Your task to perform on an android device: turn off javascript in the chrome app Image 0: 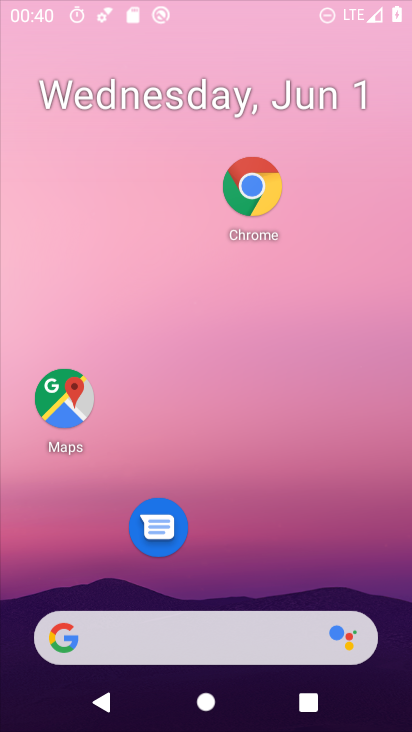
Step 0: click (183, 187)
Your task to perform on an android device: turn off javascript in the chrome app Image 1: 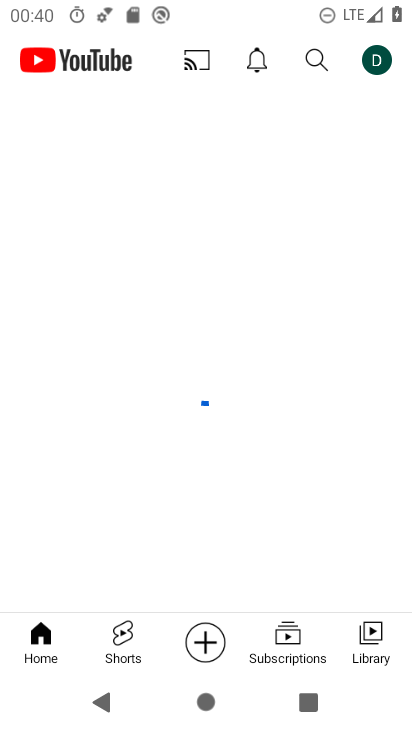
Step 1: drag from (234, 527) to (189, 212)
Your task to perform on an android device: turn off javascript in the chrome app Image 2: 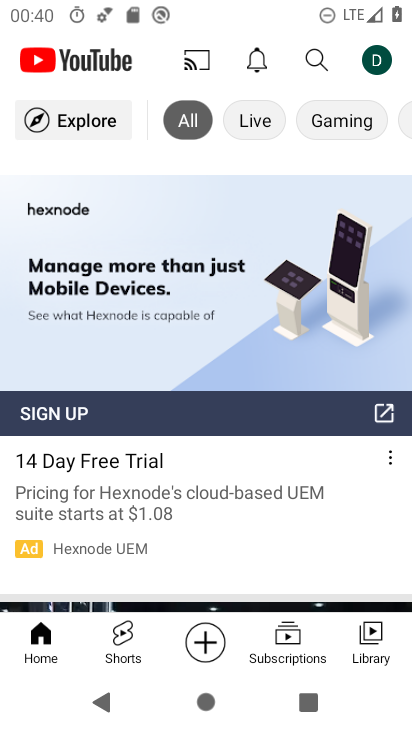
Step 2: press home button
Your task to perform on an android device: turn off javascript in the chrome app Image 3: 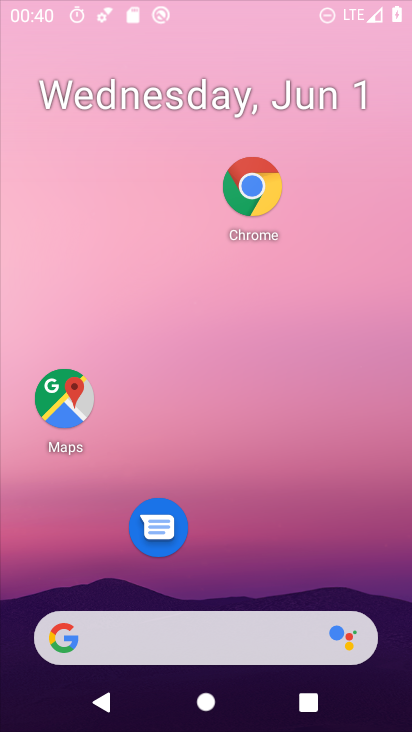
Step 3: drag from (274, 509) to (285, 254)
Your task to perform on an android device: turn off javascript in the chrome app Image 4: 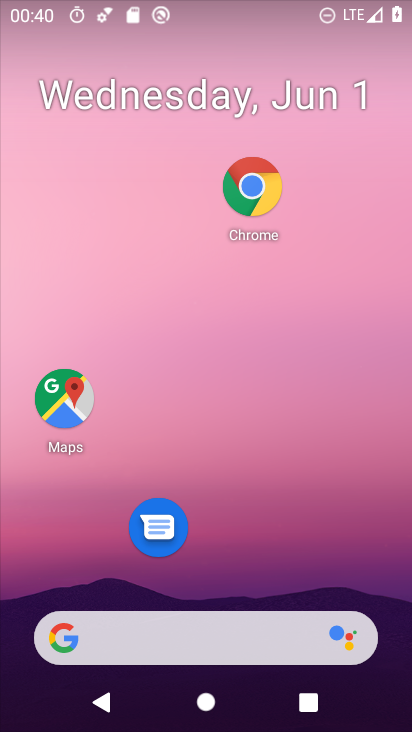
Step 4: drag from (235, 488) to (231, 211)
Your task to perform on an android device: turn off javascript in the chrome app Image 5: 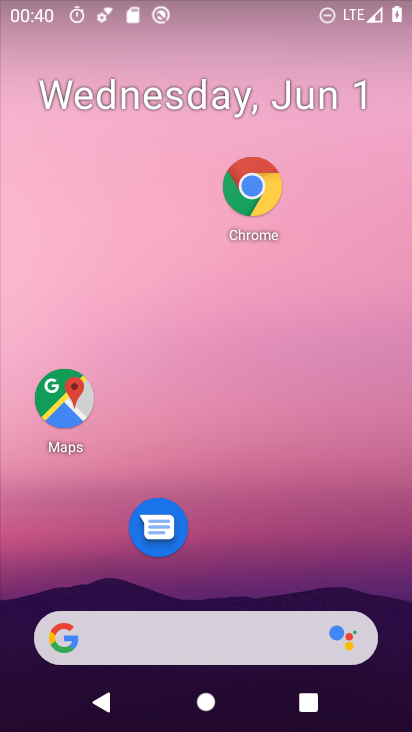
Step 5: drag from (243, 528) to (236, 74)
Your task to perform on an android device: turn off javascript in the chrome app Image 6: 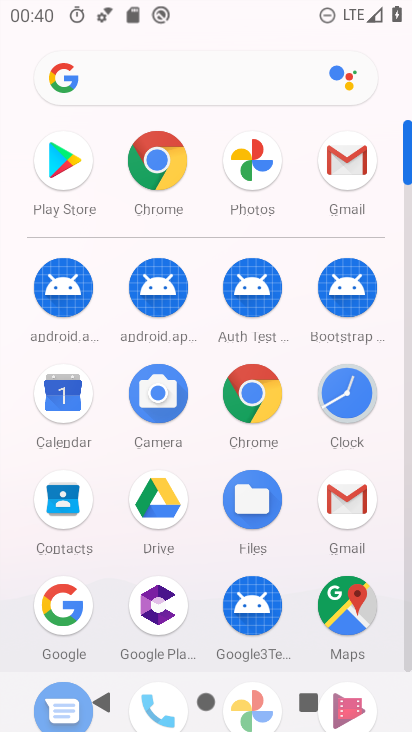
Step 6: click (260, 394)
Your task to perform on an android device: turn off javascript in the chrome app Image 7: 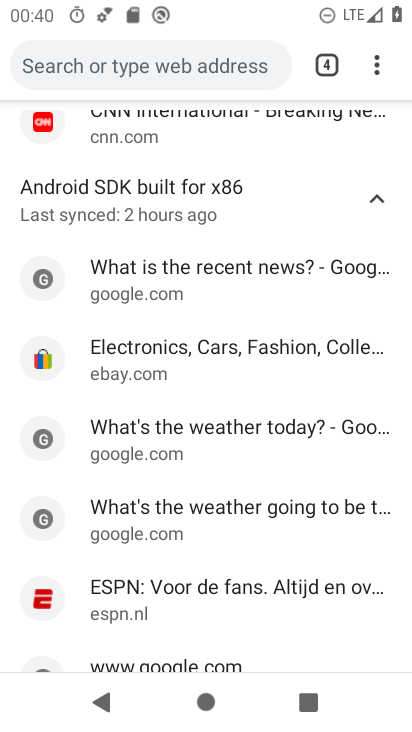
Step 7: drag from (380, 68) to (181, 552)
Your task to perform on an android device: turn off javascript in the chrome app Image 8: 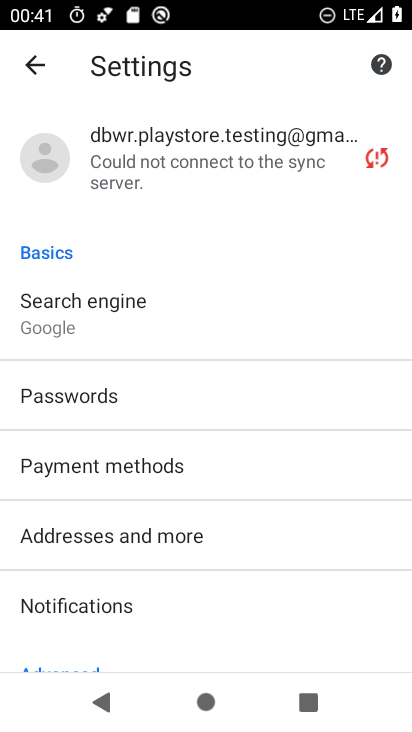
Step 8: drag from (188, 556) to (243, 155)
Your task to perform on an android device: turn off javascript in the chrome app Image 9: 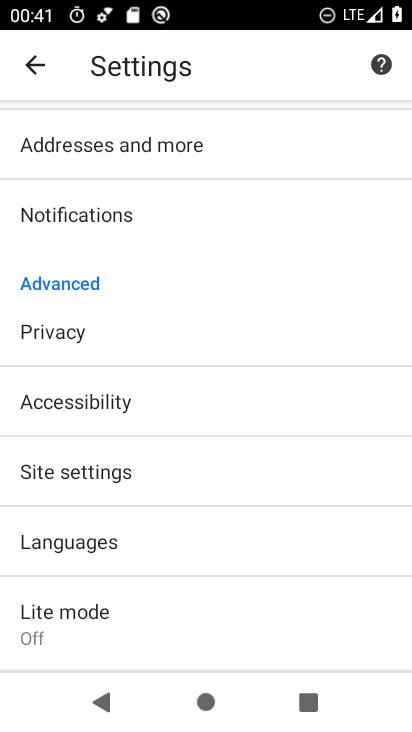
Step 9: click (124, 463)
Your task to perform on an android device: turn off javascript in the chrome app Image 10: 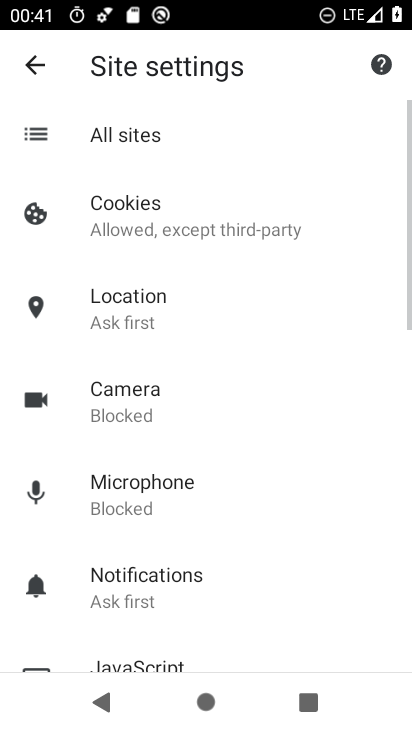
Step 10: drag from (195, 541) to (256, 152)
Your task to perform on an android device: turn off javascript in the chrome app Image 11: 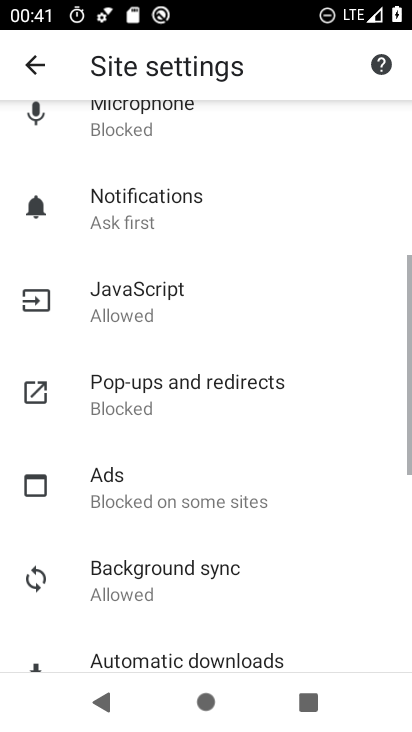
Step 11: click (167, 318)
Your task to perform on an android device: turn off javascript in the chrome app Image 12: 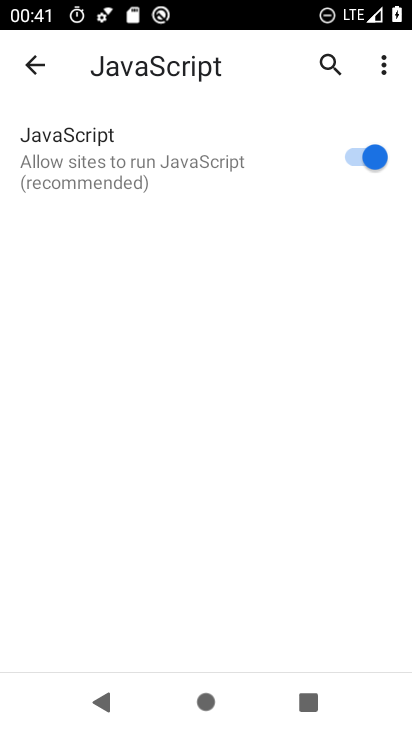
Step 12: click (357, 165)
Your task to perform on an android device: turn off javascript in the chrome app Image 13: 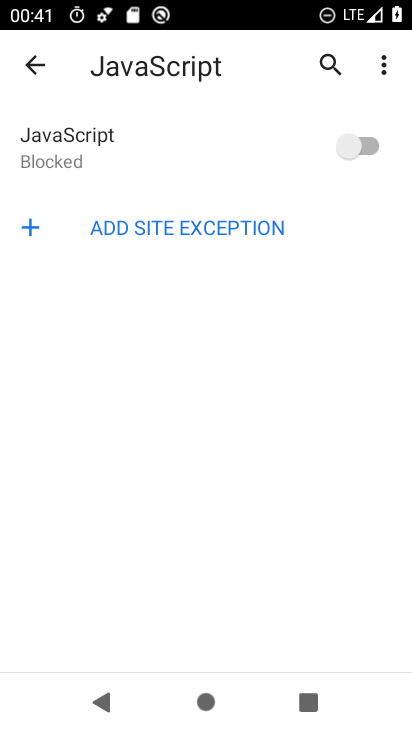
Step 13: task complete